Your task to perform on an android device: add a contact in the contacts app Image 0: 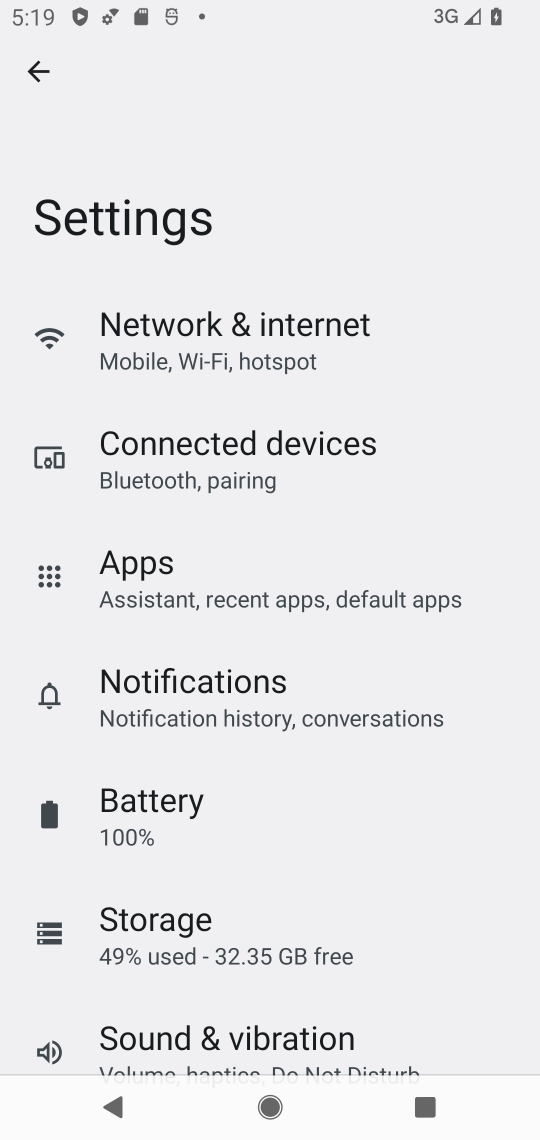
Step 0: press home button
Your task to perform on an android device: add a contact in the contacts app Image 1: 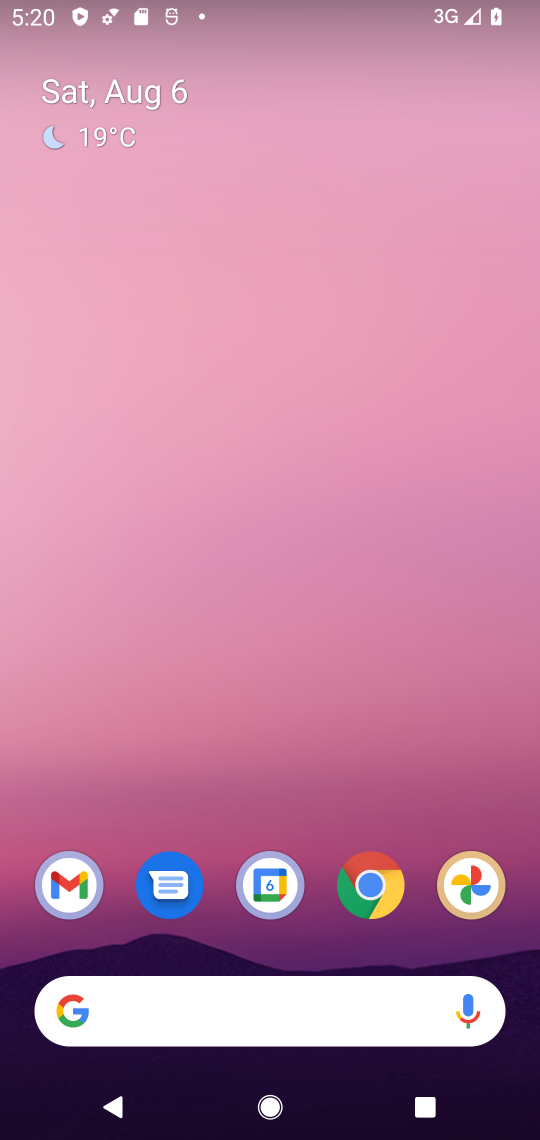
Step 1: drag from (451, 965) to (252, 34)
Your task to perform on an android device: add a contact in the contacts app Image 2: 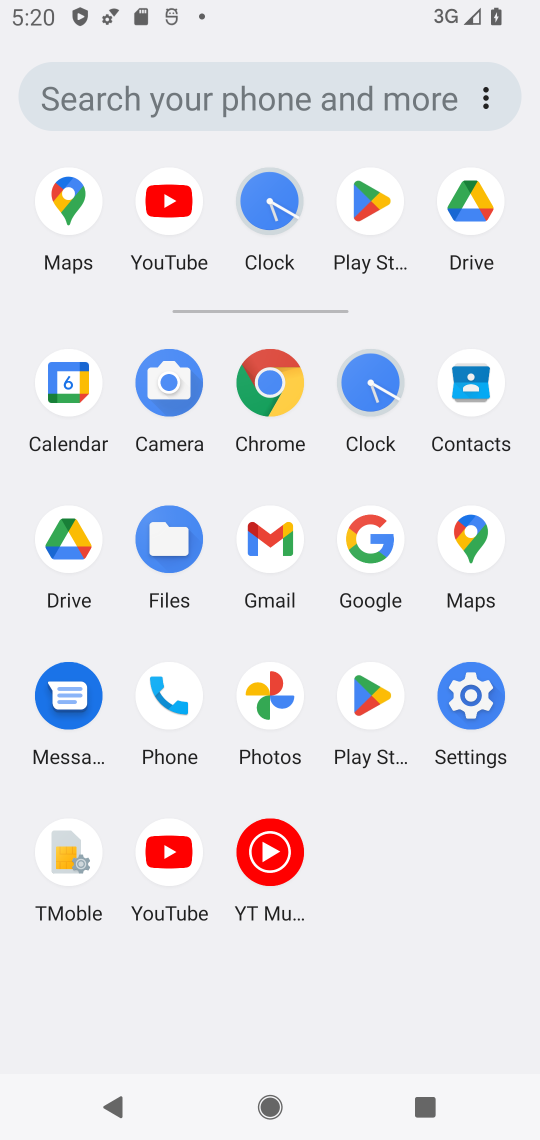
Step 2: click (456, 395)
Your task to perform on an android device: add a contact in the contacts app Image 3: 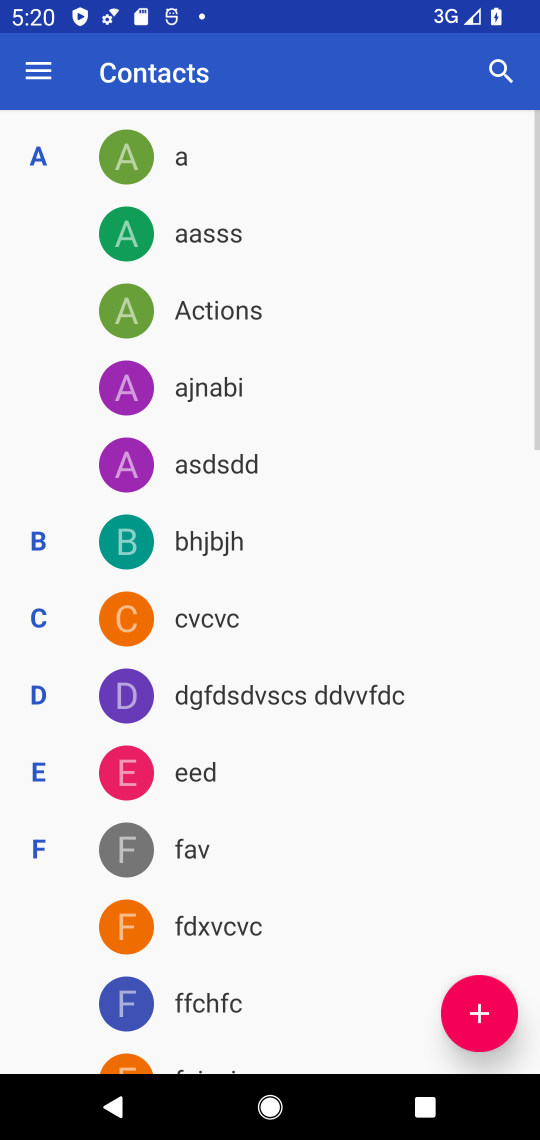
Step 3: click (476, 1002)
Your task to perform on an android device: add a contact in the contacts app Image 4: 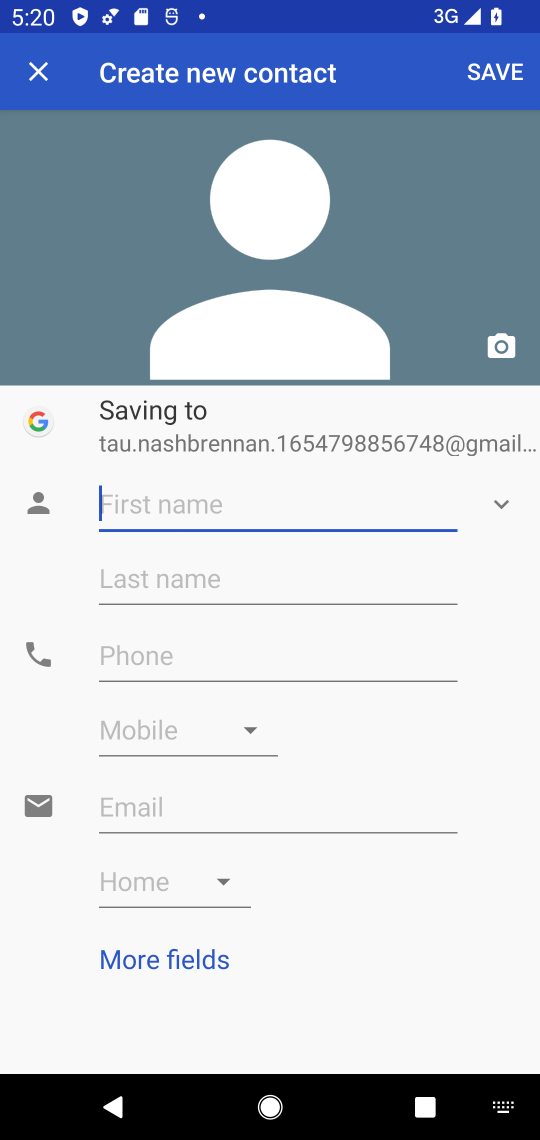
Step 4: type "rita"
Your task to perform on an android device: add a contact in the contacts app Image 5: 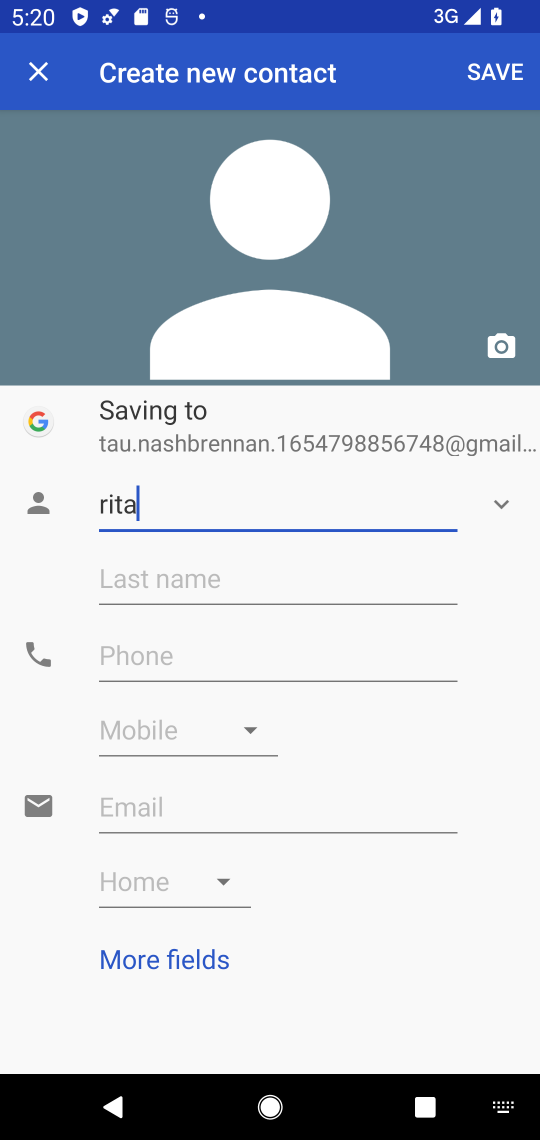
Step 5: click (497, 69)
Your task to perform on an android device: add a contact in the contacts app Image 6: 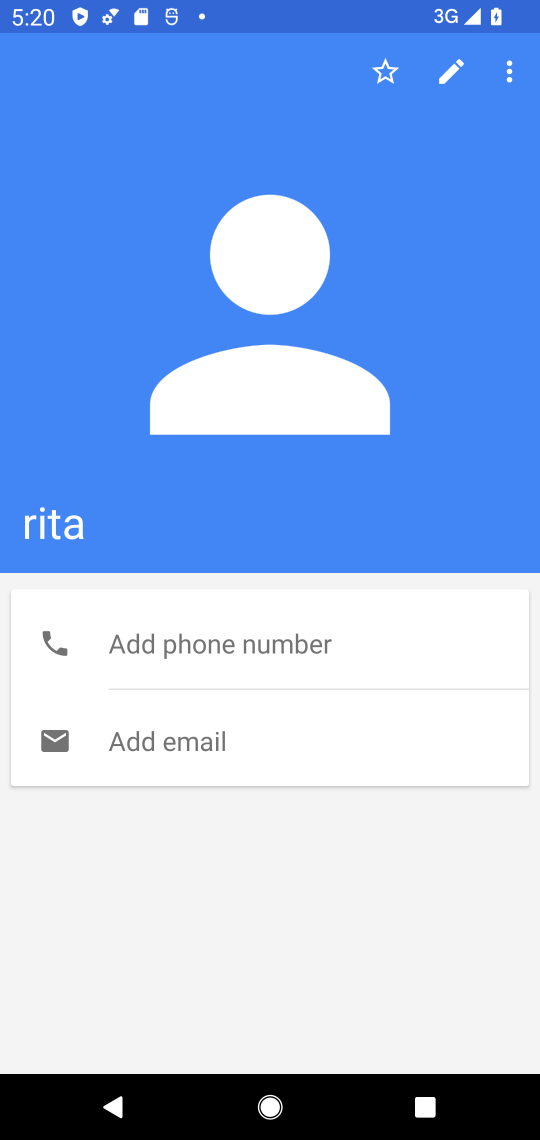
Step 6: task complete